Your task to perform on an android device: snooze an email in the gmail app Image 0: 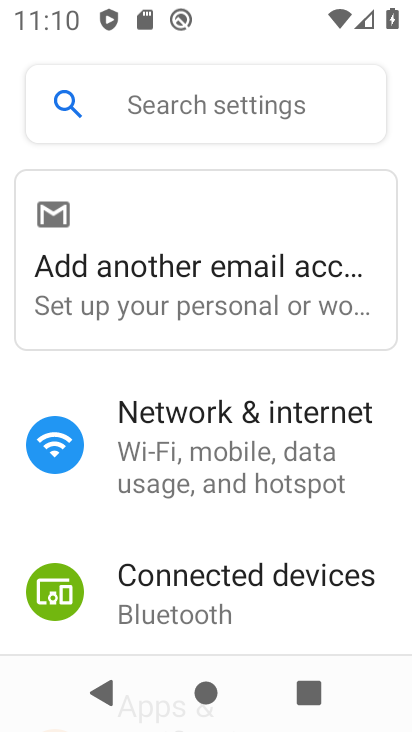
Step 0: press home button
Your task to perform on an android device: snooze an email in the gmail app Image 1: 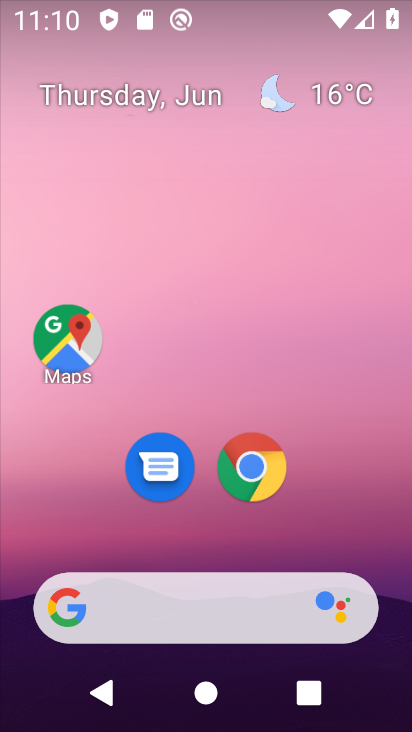
Step 1: drag from (394, 538) to (352, 91)
Your task to perform on an android device: snooze an email in the gmail app Image 2: 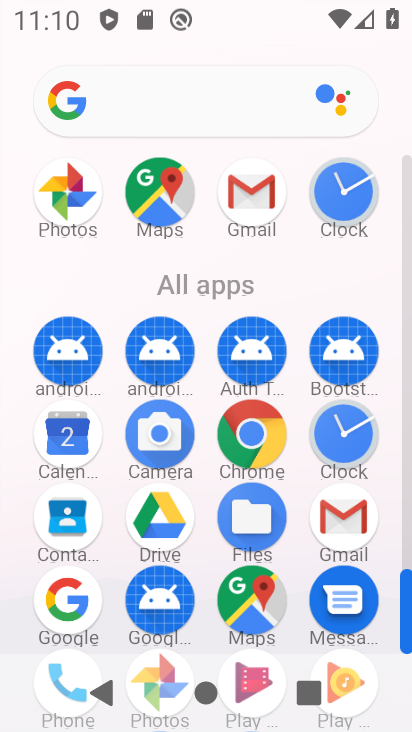
Step 2: click (342, 521)
Your task to perform on an android device: snooze an email in the gmail app Image 3: 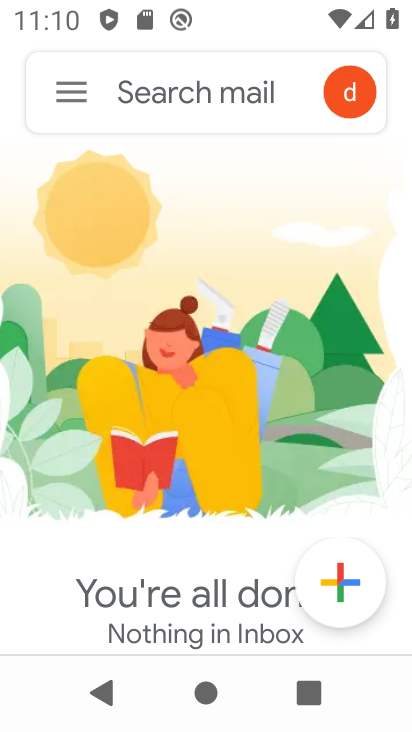
Step 3: click (65, 98)
Your task to perform on an android device: snooze an email in the gmail app Image 4: 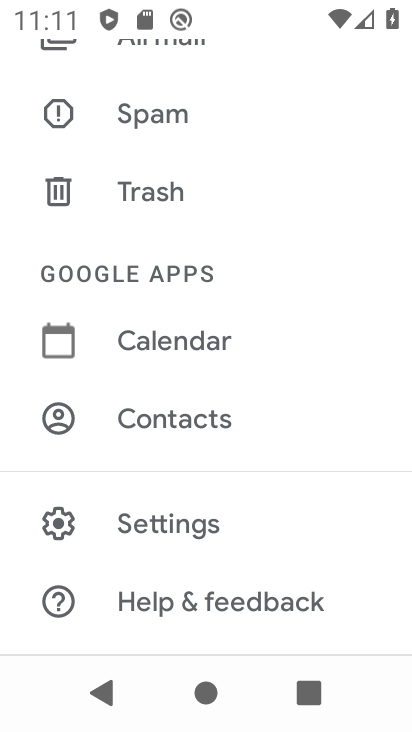
Step 4: drag from (293, 122) to (303, 340)
Your task to perform on an android device: snooze an email in the gmail app Image 5: 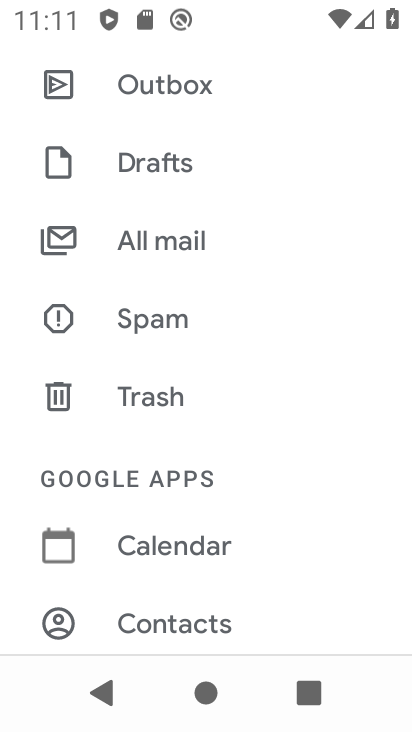
Step 5: click (154, 251)
Your task to perform on an android device: snooze an email in the gmail app Image 6: 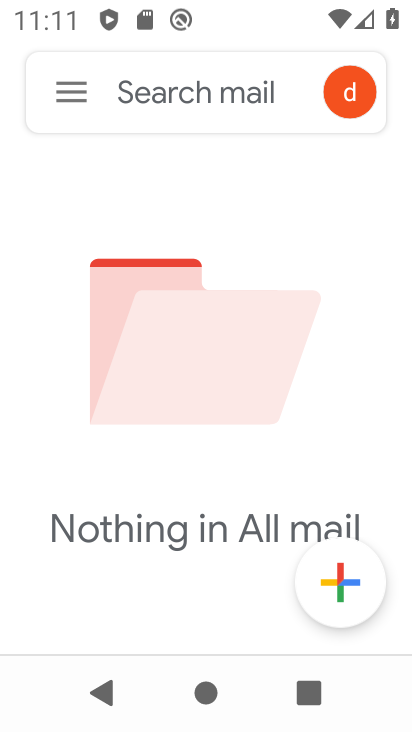
Step 6: task complete